Your task to perform on an android device: open device folders in google photos Image 0: 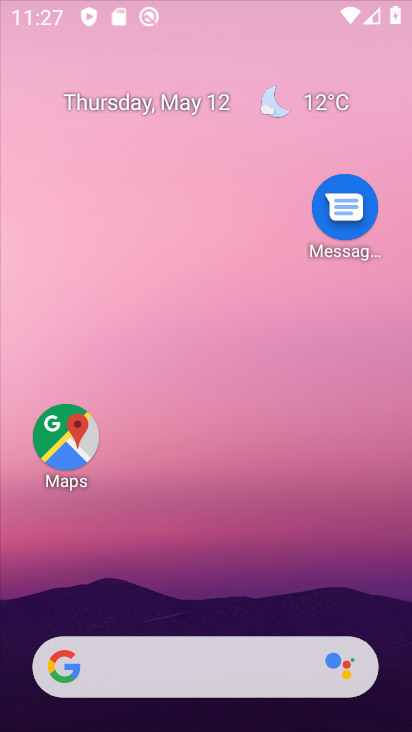
Step 0: press home button
Your task to perform on an android device: open device folders in google photos Image 1: 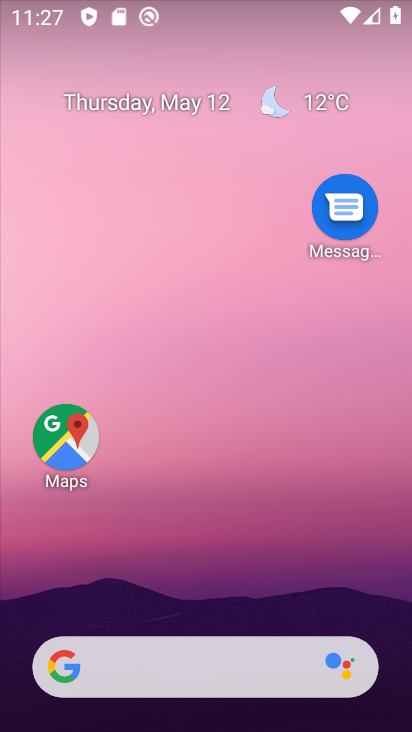
Step 1: drag from (327, 576) to (274, 41)
Your task to perform on an android device: open device folders in google photos Image 2: 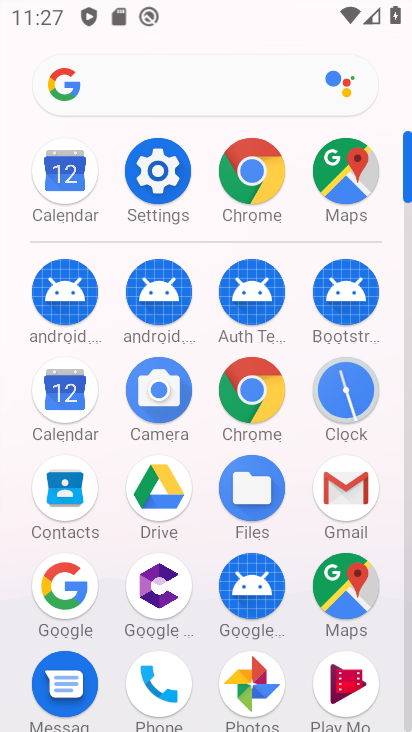
Step 2: click (225, 671)
Your task to perform on an android device: open device folders in google photos Image 3: 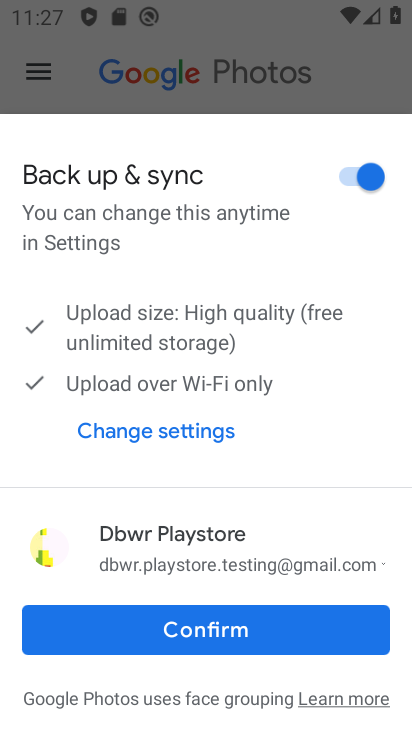
Step 3: click (301, 622)
Your task to perform on an android device: open device folders in google photos Image 4: 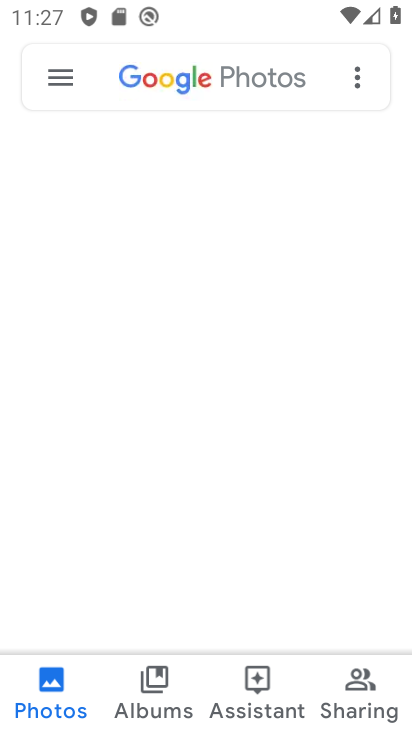
Step 4: click (36, 84)
Your task to perform on an android device: open device folders in google photos Image 5: 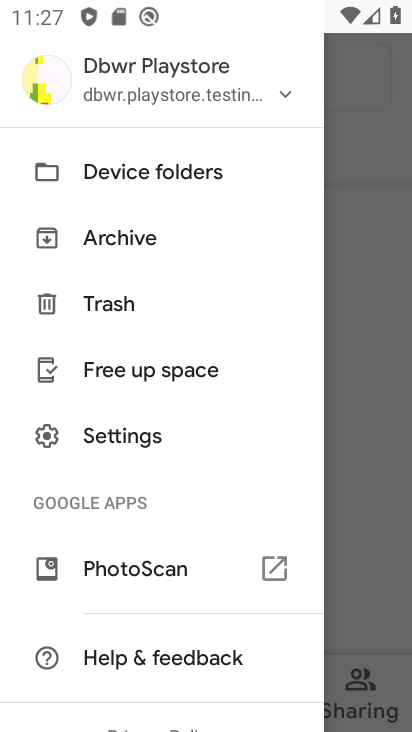
Step 5: click (189, 175)
Your task to perform on an android device: open device folders in google photos Image 6: 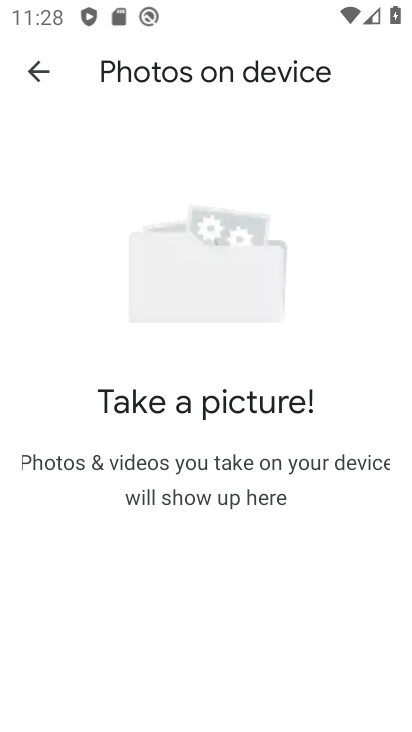
Step 6: task complete